Your task to perform on an android device: Open Chrome and go to settings Image 0: 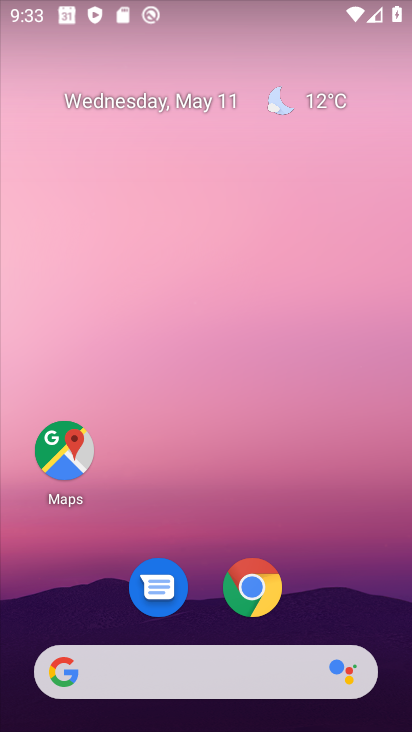
Step 0: click (255, 590)
Your task to perform on an android device: Open Chrome and go to settings Image 1: 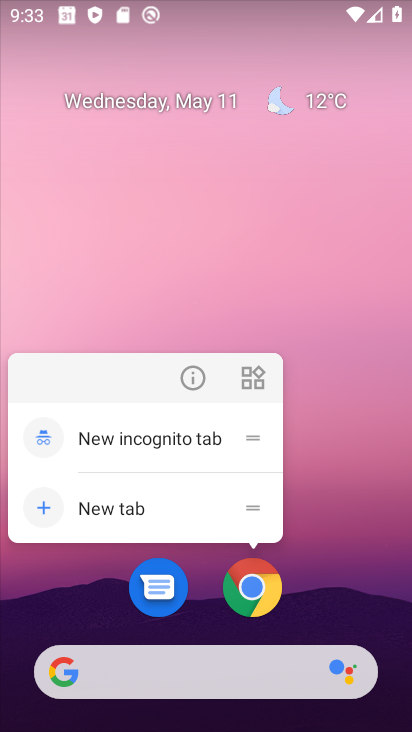
Step 1: click (237, 599)
Your task to perform on an android device: Open Chrome and go to settings Image 2: 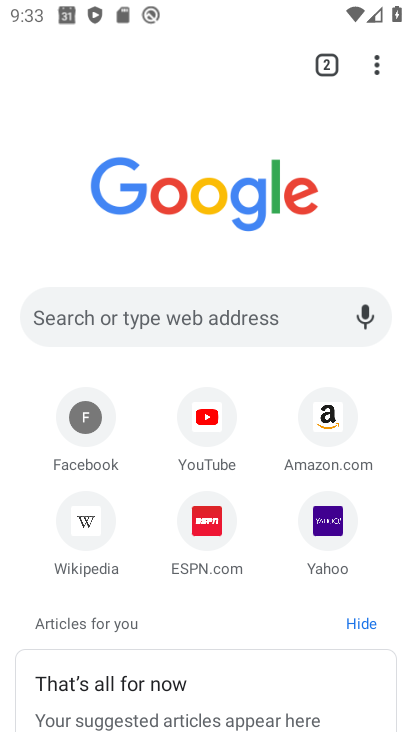
Step 2: task complete